Your task to perform on an android device: check data usage Image 0: 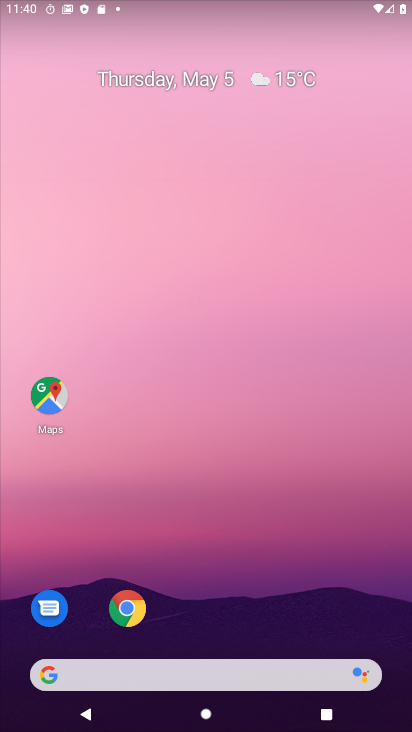
Step 0: drag from (223, 629) to (235, 31)
Your task to perform on an android device: check data usage Image 1: 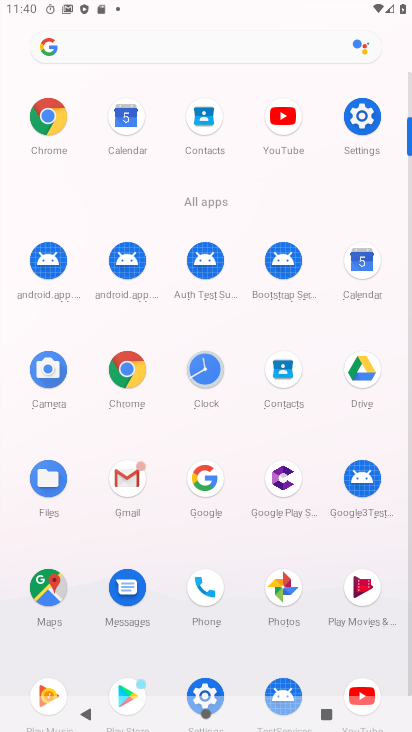
Step 1: click (363, 118)
Your task to perform on an android device: check data usage Image 2: 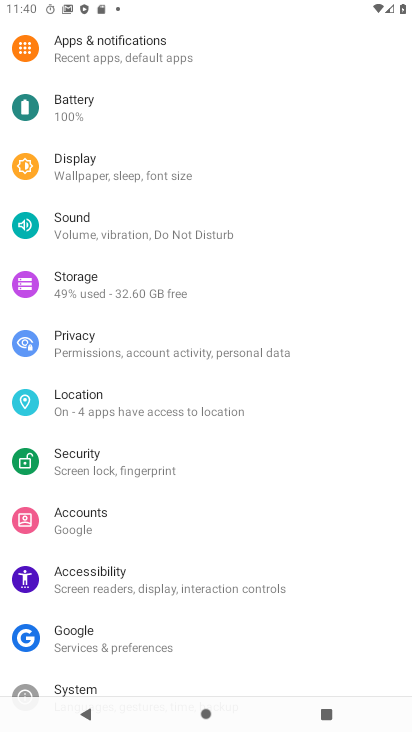
Step 2: drag from (173, 225) to (192, 282)
Your task to perform on an android device: check data usage Image 3: 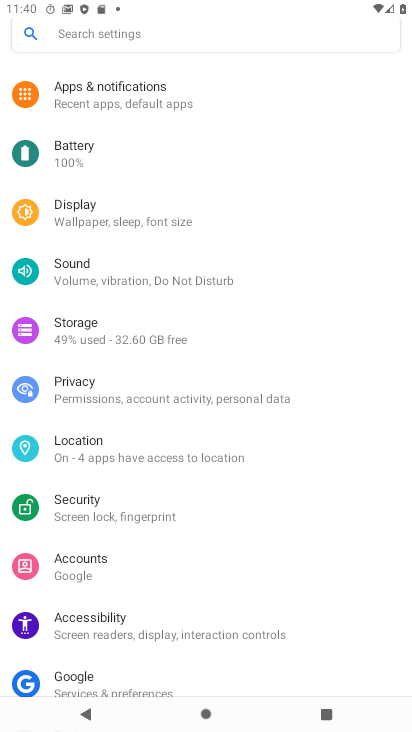
Step 3: drag from (197, 199) to (205, 286)
Your task to perform on an android device: check data usage Image 4: 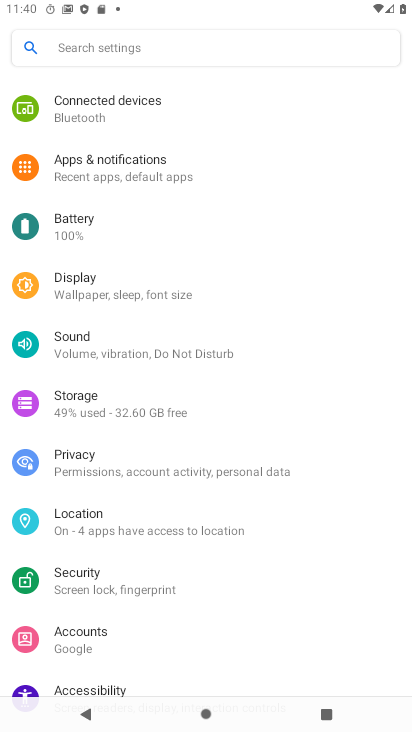
Step 4: drag from (194, 233) to (218, 308)
Your task to perform on an android device: check data usage Image 5: 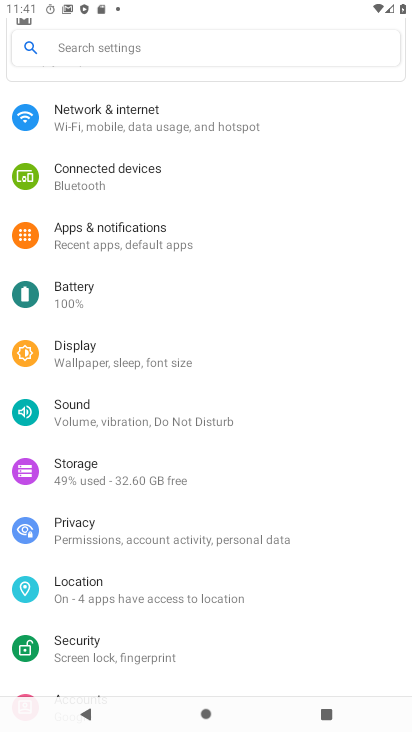
Step 5: click (145, 124)
Your task to perform on an android device: check data usage Image 6: 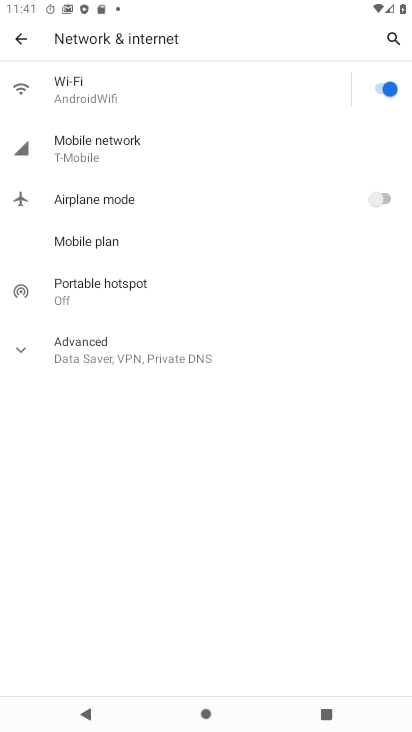
Step 6: click (125, 144)
Your task to perform on an android device: check data usage Image 7: 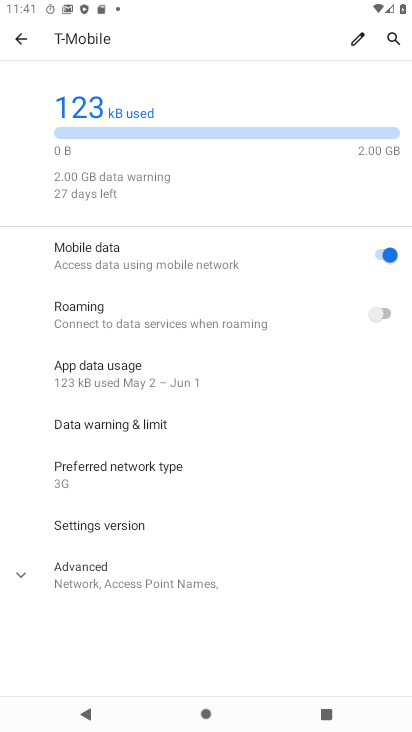
Step 7: task complete